Your task to perform on an android device: turn off data saver in the chrome app Image 0: 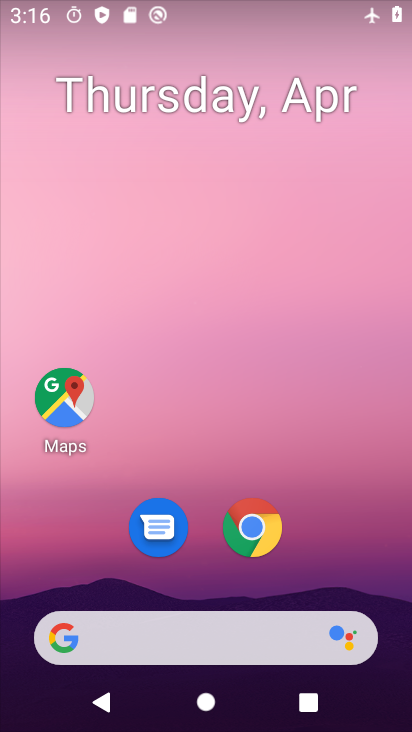
Step 0: click (252, 523)
Your task to perform on an android device: turn off data saver in the chrome app Image 1: 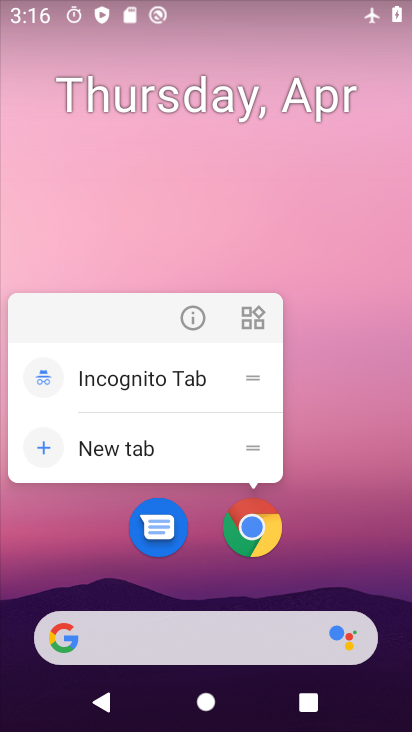
Step 1: drag from (300, 533) to (283, 127)
Your task to perform on an android device: turn off data saver in the chrome app Image 2: 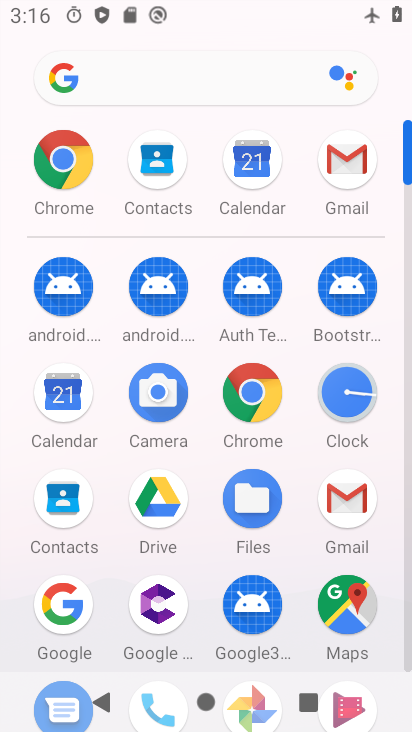
Step 2: click (255, 405)
Your task to perform on an android device: turn off data saver in the chrome app Image 3: 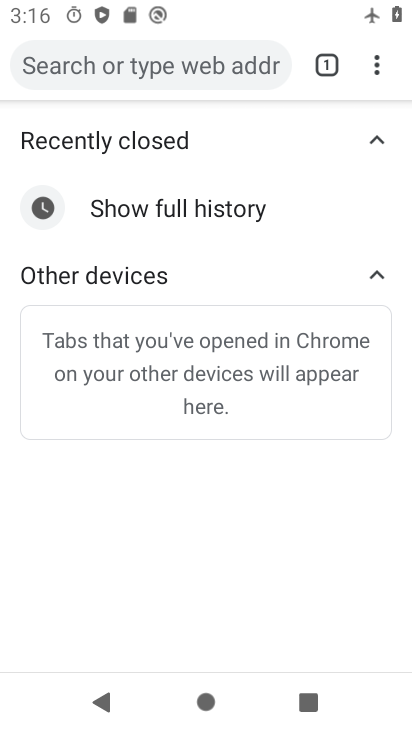
Step 3: drag from (377, 66) to (181, 577)
Your task to perform on an android device: turn off data saver in the chrome app Image 4: 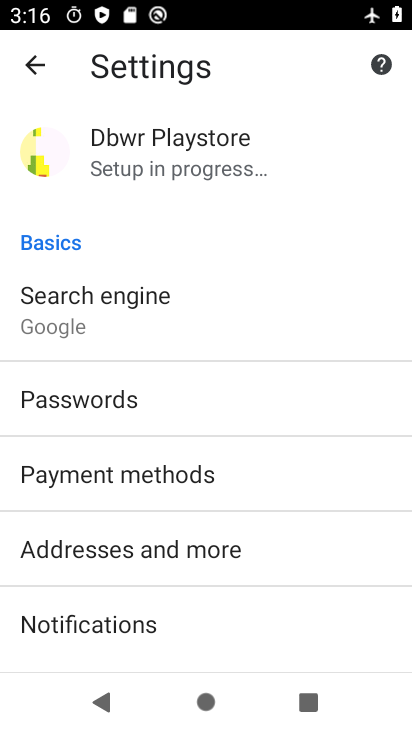
Step 4: drag from (182, 558) to (234, 178)
Your task to perform on an android device: turn off data saver in the chrome app Image 5: 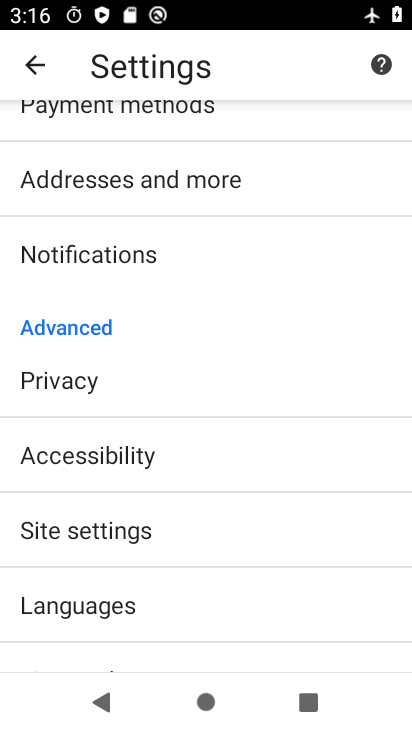
Step 5: click (143, 522)
Your task to perform on an android device: turn off data saver in the chrome app Image 6: 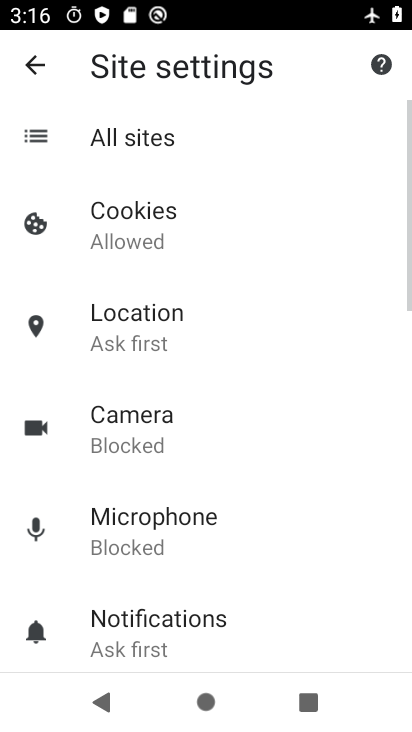
Step 6: drag from (274, 530) to (280, 243)
Your task to perform on an android device: turn off data saver in the chrome app Image 7: 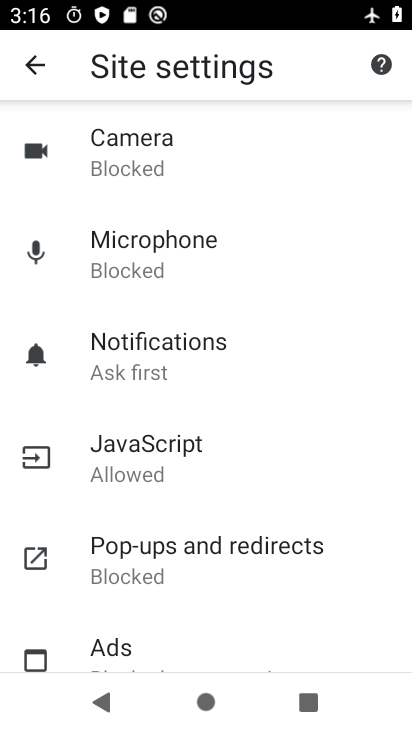
Step 7: click (37, 75)
Your task to perform on an android device: turn off data saver in the chrome app Image 8: 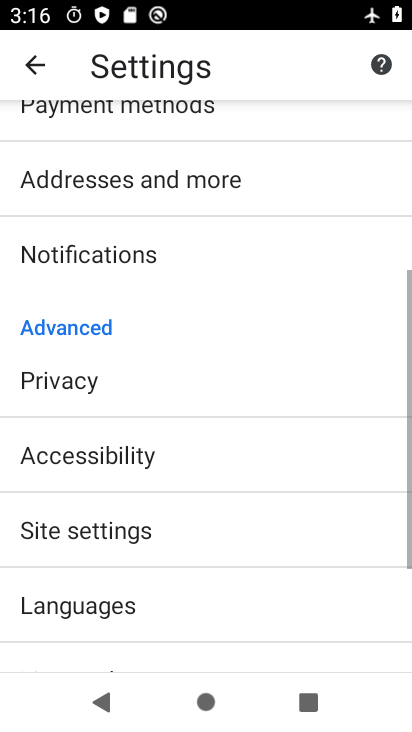
Step 8: drag from (204, 559) to (248, 267)
Your task to perform on an android device: turn off data saver in the chrome app Image 9: 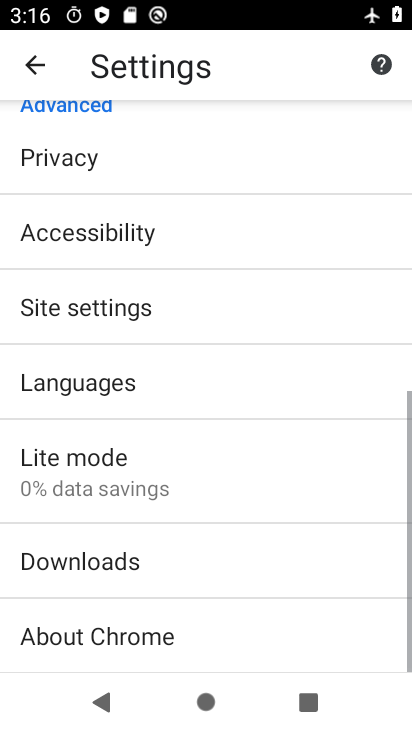
Step 9: click (133, 471)
Your task to perform on an android device: turn off data saver in the chrome app Image 10: 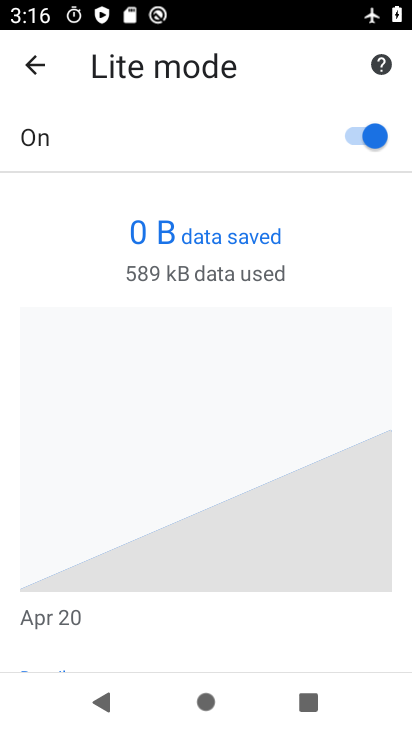
Step 10: click (364, 141)
Your task to perform on an android device: turn off data saver in the chrome app Image 11: 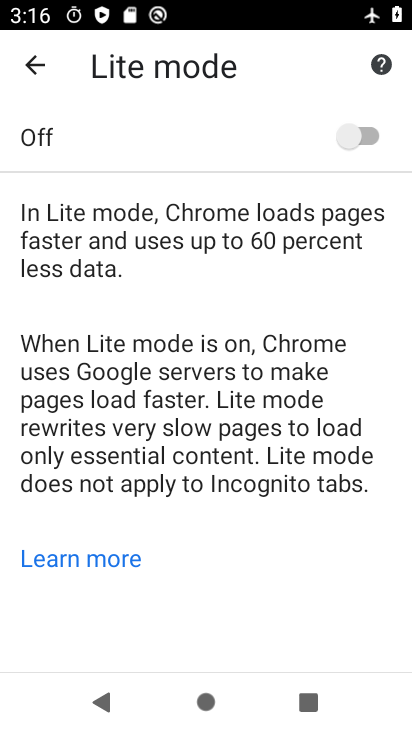
Step 11: task complete